Your task to perform on an android device: turn on wifi Image 0: 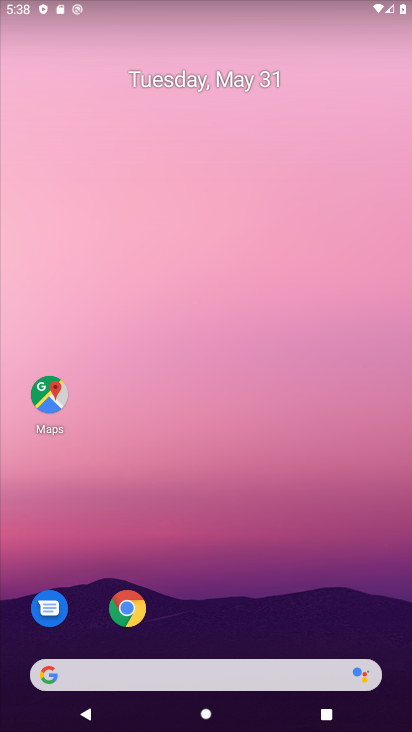
Step 0: drag from (180, 640) to (112, 234)
Your task to perform on an android device: turn on wifi Image 1: 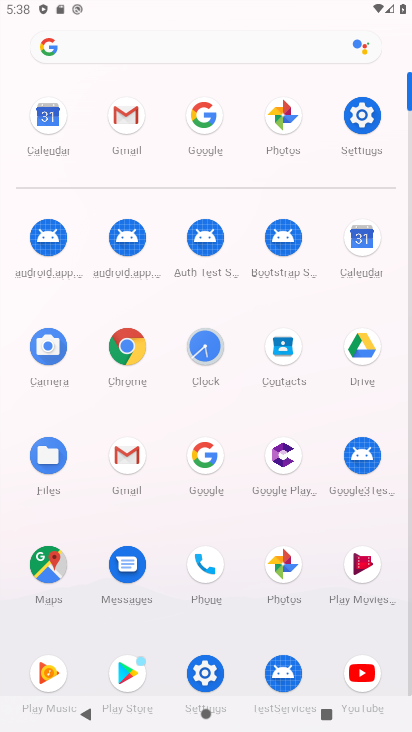
Step 1: click (367, 121)
Your task to perform on an android device: turn on wifi Image 2: 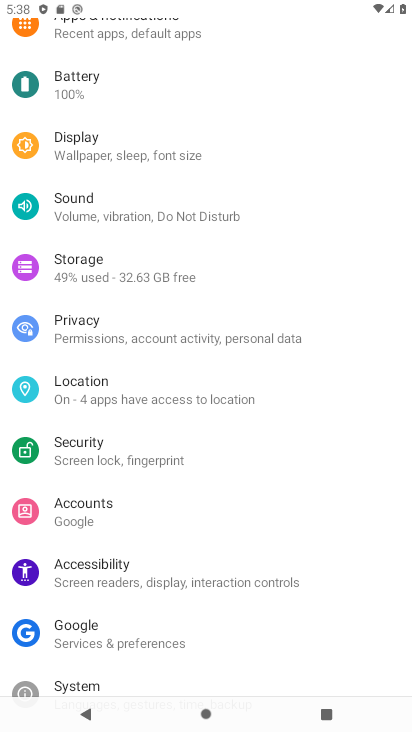
Step 2: drag from (196, 105) to (198, 586)
Your task to perform on an android device: turn on wifi Image 3: 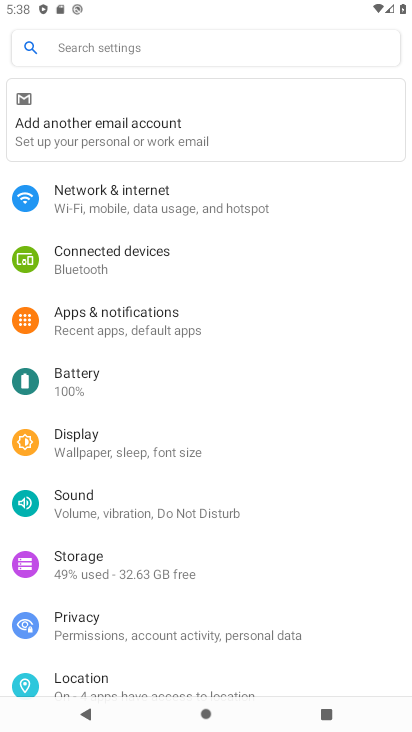
Step 3: click (132, 194)
Your task to perform on an android device: turn on wifi Image 4: 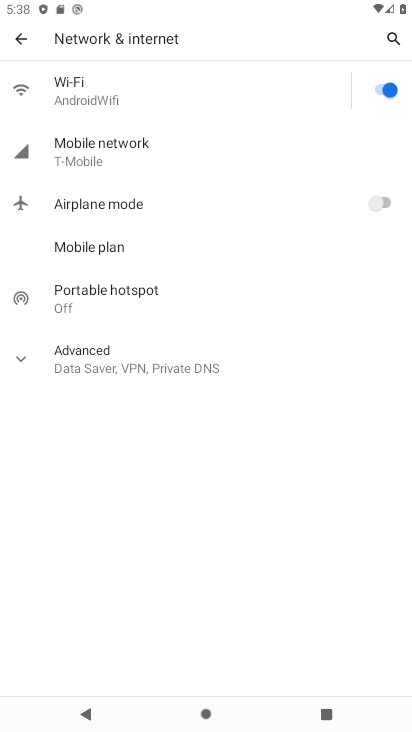
Step 4: task complete